Your task to perform on an android device: Search for Mexican restaurants on Maps Image 0: 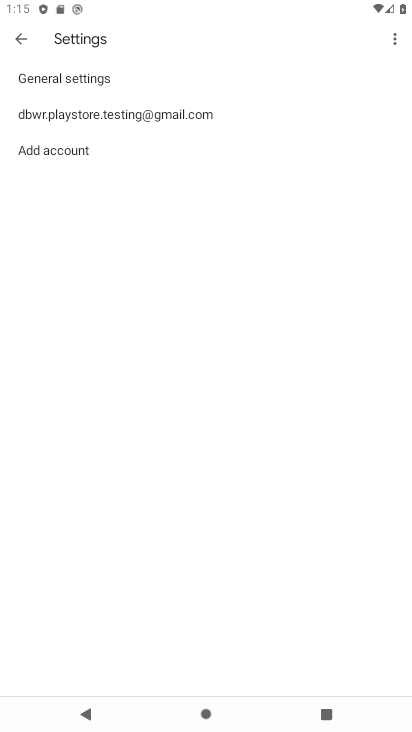
Step 0: press home button
Your task to perform on an android device: Search for Mexican restaurants on Maps Image 1: 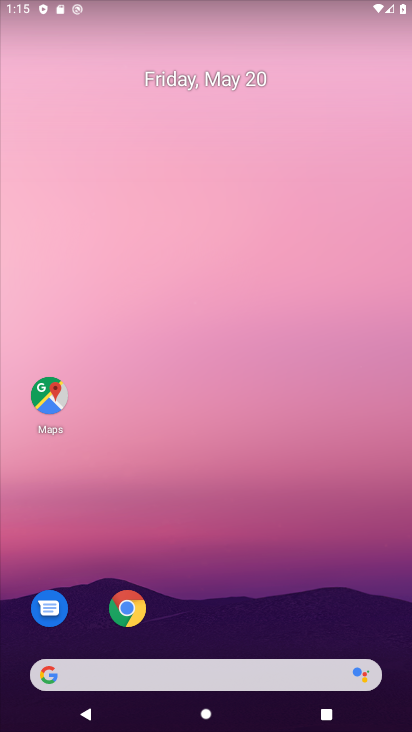
Step 1: click (34, 388)
Your task to perform on an android device: Search for Mexican restaurants on Maps Image 2: 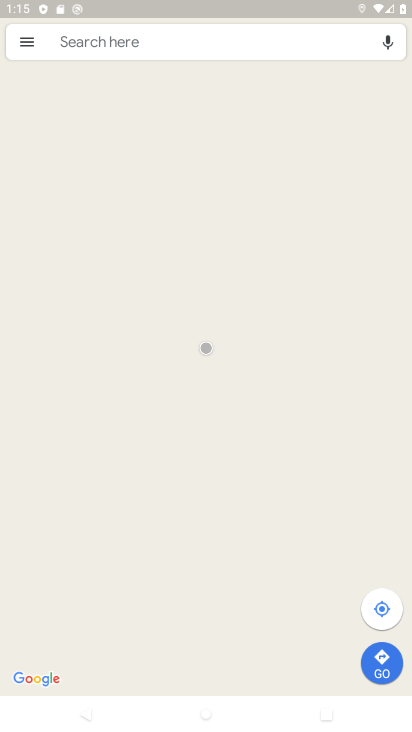
Step 2: click (111, 26)
Your task to perform on an android device: Search for Mexican restaurants on Maps Image 3: 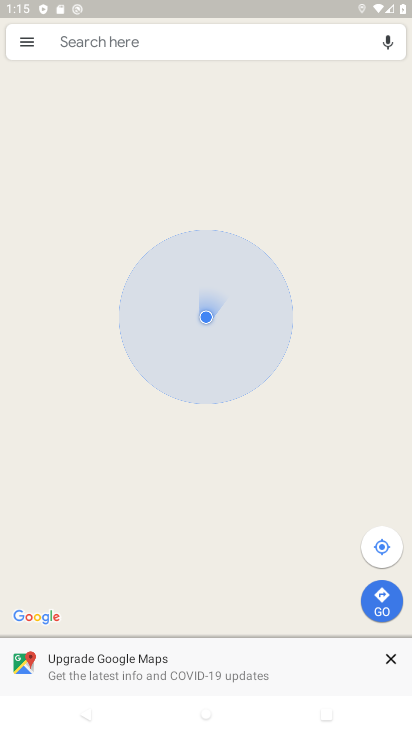
Step 3: click (94, 49)
Your task to perform on an android device: Search for Mexican restaurants on Maps Image 4: 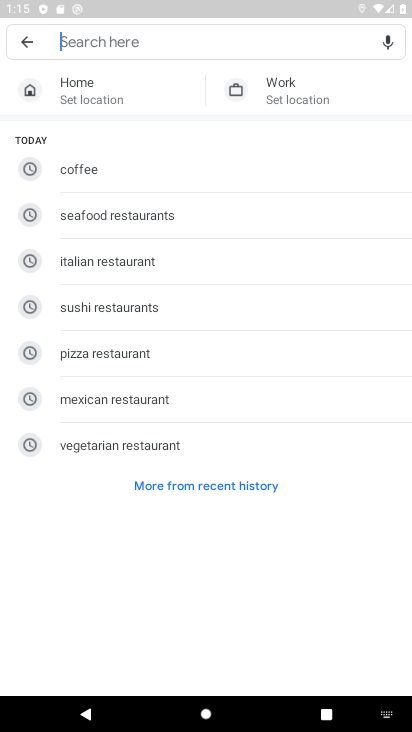
Step 4: click (102, 398)
Your task to perform on an android device: Search for Mexican restaurants on Maps Image 5: 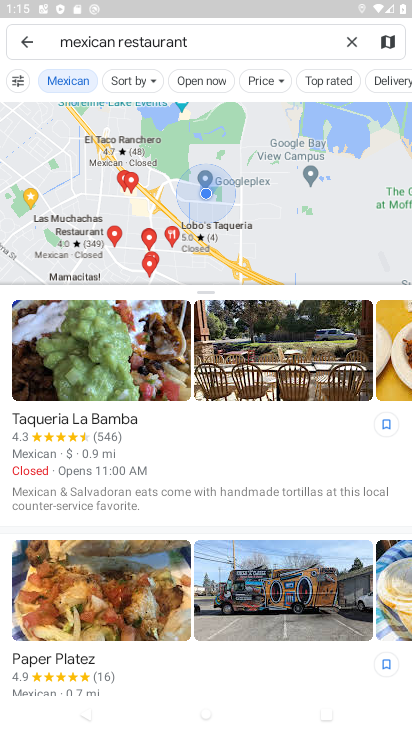
Step 5: task complete